Your task to perform on an android device: turn on notifications settings in the gmail app Image 0: 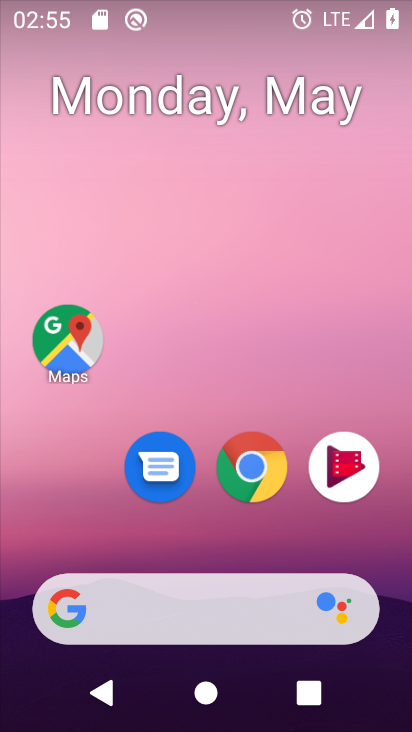
Step 0: click (242, 467)
Your task to perform on an android device: turn on notifications settings in the gmail app Image 1: 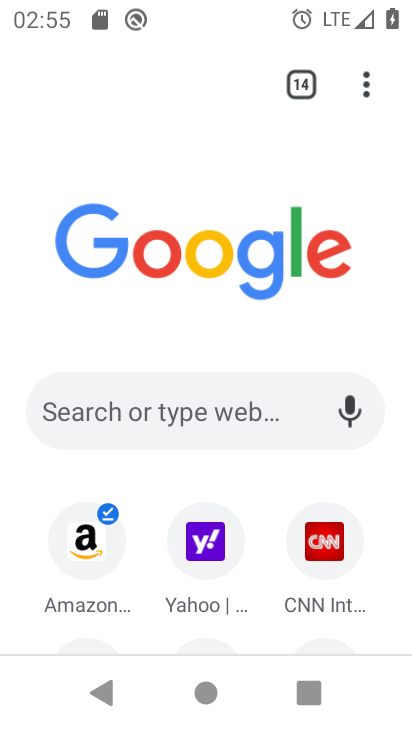
Step 1: press home button
Your task to perform on an android device: turn on notifications settings in the gmail app Image 2: 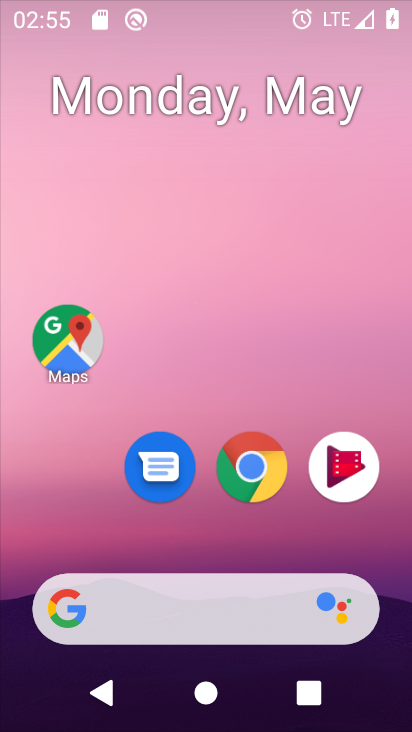
Step 2: drag from (249, 616) to (309, 279)
Your task to perform on an android device: turn on notifications settings in the gmail app Image 3: 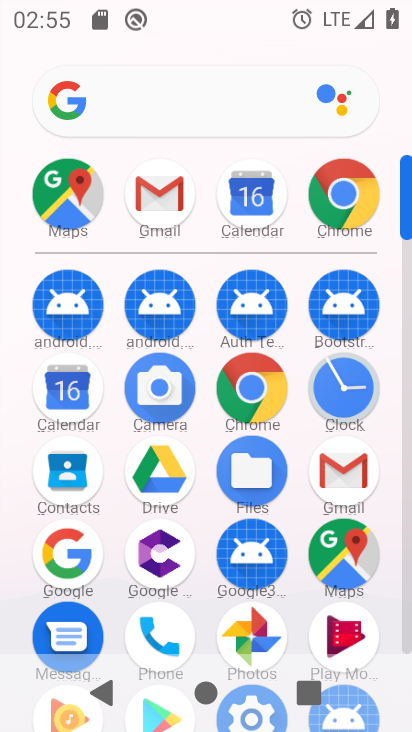
Step 3: click (342, 469)
Your task to perform on an android device: turn on notifications settings in the gmail app Image 4: 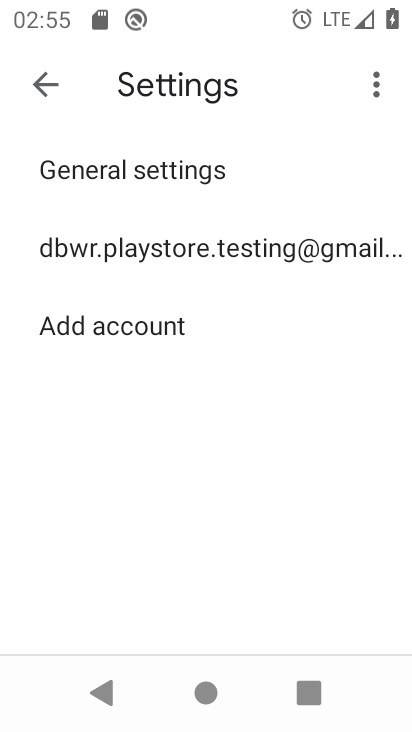
Step 4: click (41, 83)
Your task to perform on an android device: turn on notifications settings in the gmail app Image 5: 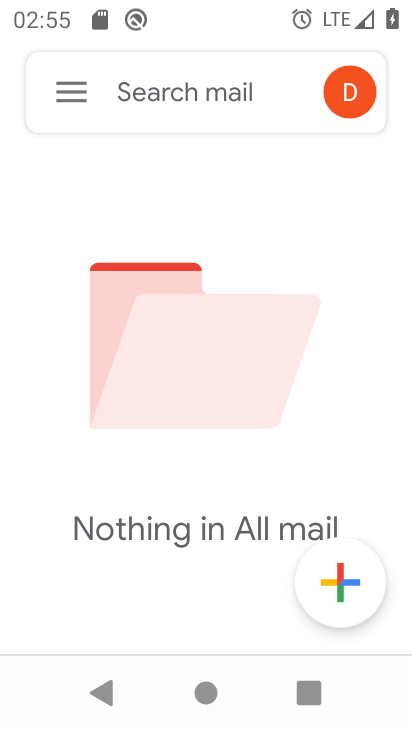
Step 5: click (61, 92)
Your task to perform on an android device: turn on notifications settings in the gmail app Image 6: 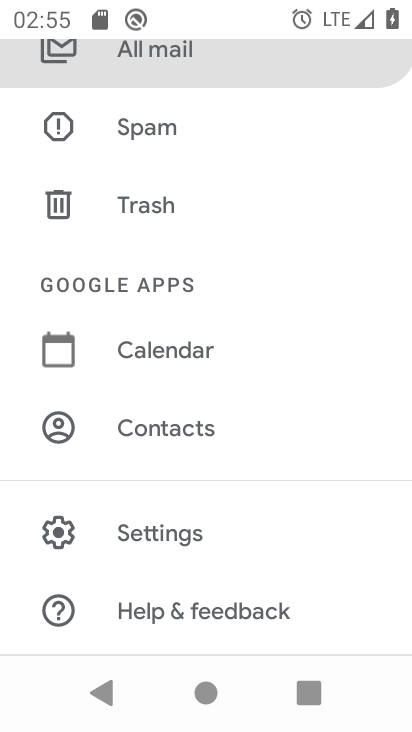
Step 6: drag from (130, 610) to (129, 525)
Your task to perform on an android device: turn on notifications settings in the gmail app Image 7: 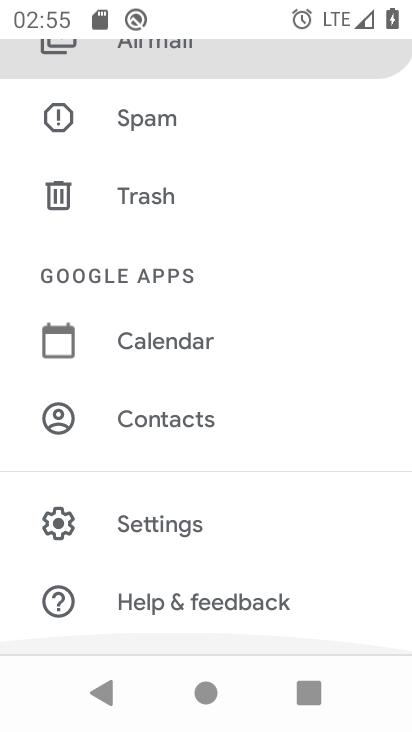
Step 7: click (129, 525)
Your task to perform on an android device: turn on notifications settings in the gmail app Image 8: 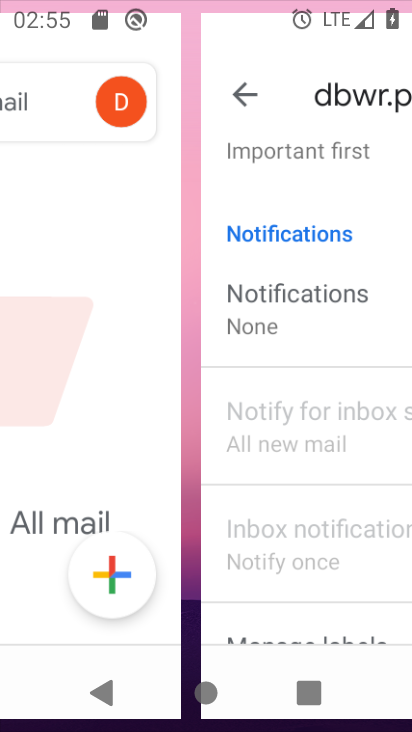
Step 8: click (129, 525)
Your task to perform on an android device: turn on notifications settings in the gmail app Image 9: 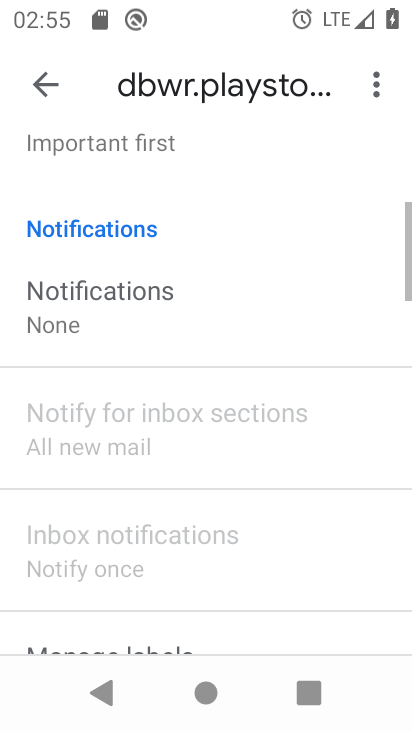
Step 9: click (141, 310)
Your task to perform on an android device: turn on notifications settings in the gmail app Image 10: 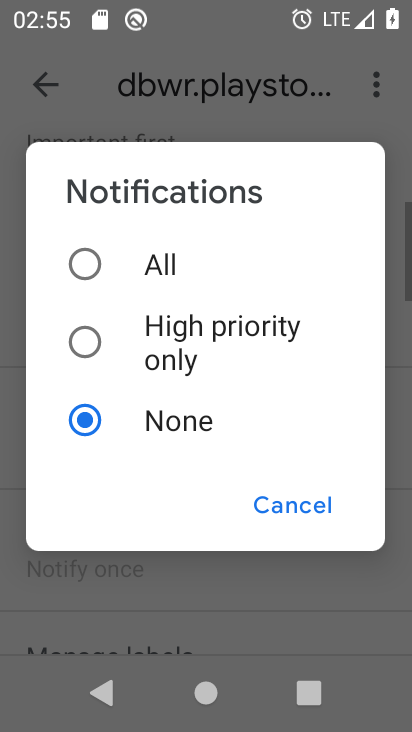
Step 10: click (134, 248)
Your task to perform on an android device: turn on notifications settings in the gmail app Image 11: 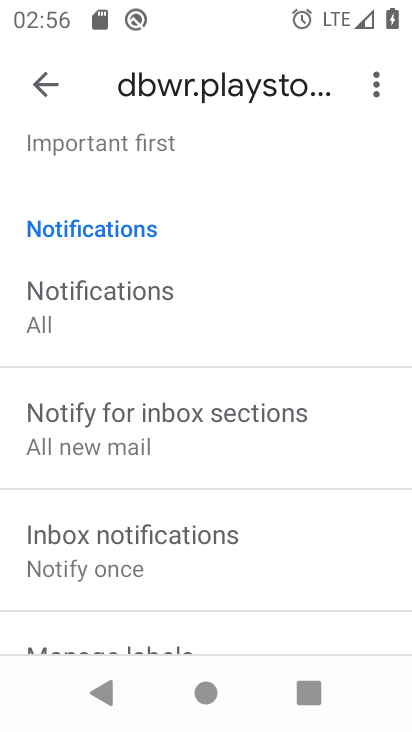
Step 11: task complete